Your task to perform on an android device: toggle location history Image 0: 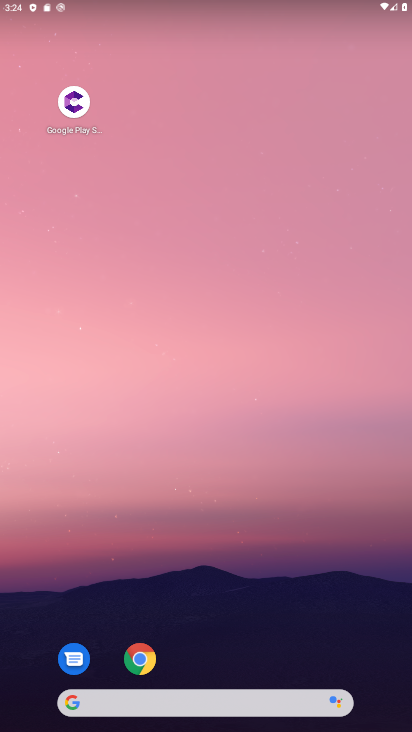
Step 0: drag from (194, 616) to (313, 6)
Your task to perform on an android device: toggle location history Image 1: 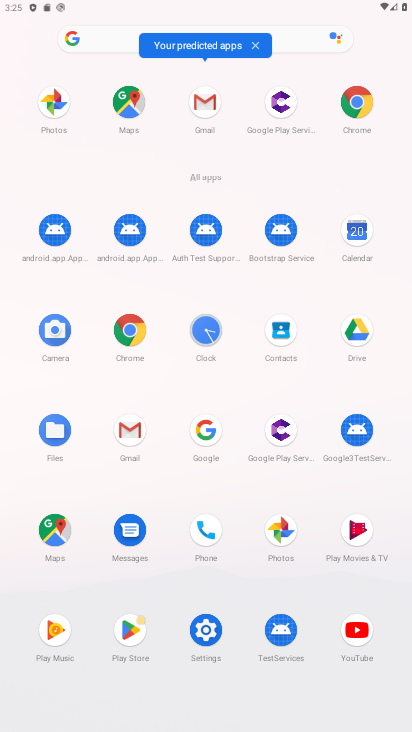
Step 1: click (205, 640)
Your task to perform on an android device: toggle location history Image 2: 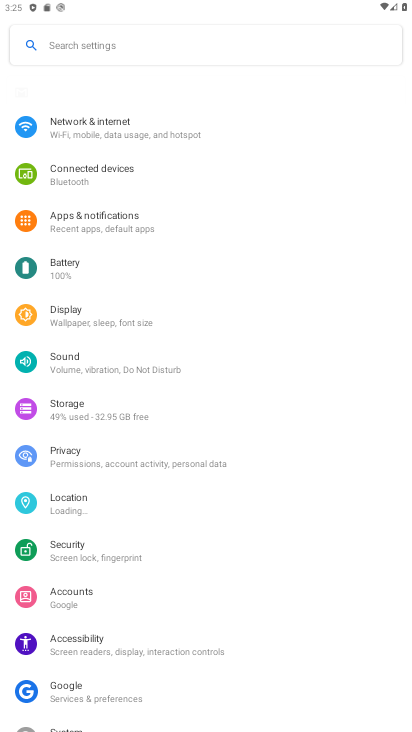
Step 2: click (210, 628)
Your task to perform on an android device: toggle location history Image 3: 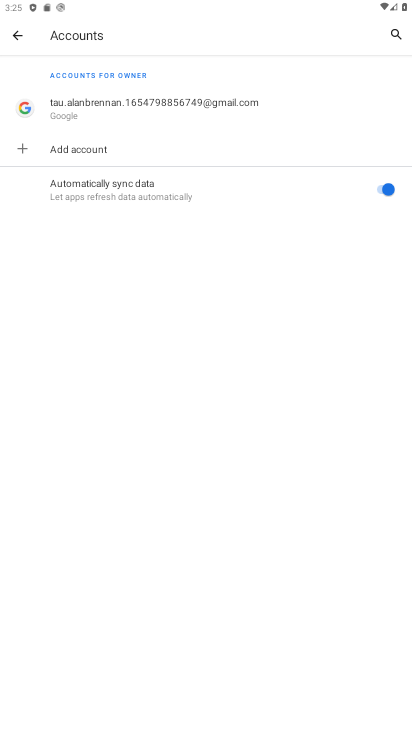
Step 3: click (75, 542)
Your task to perform on an android device: toggle location history Image 4: 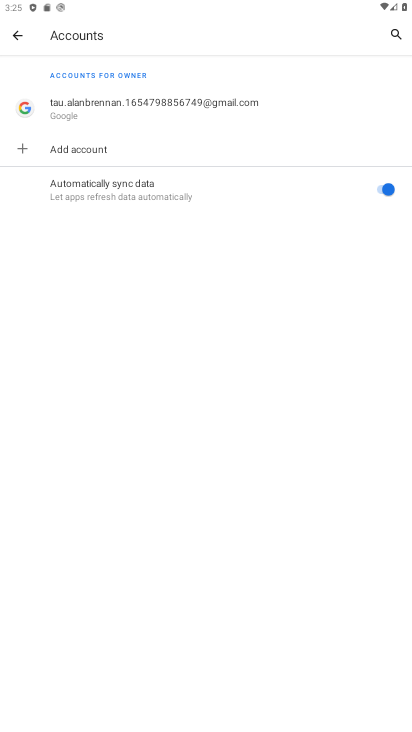
Step 4: click (21, 35)
Your task to perform on an android device: toggle location history Image 5: 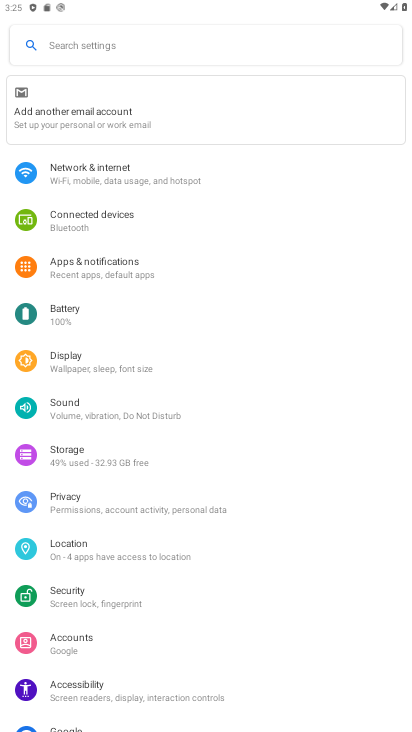
Step 5: click (84, 553)
Your task to perform on an android device: toggle location history Image 6: 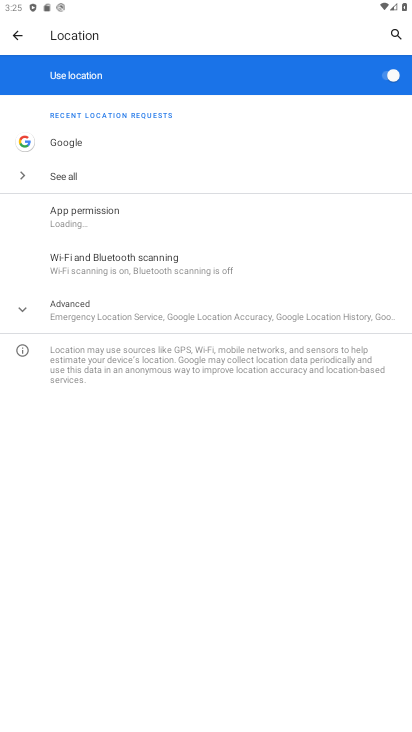
Step 6: click (81, 308)
Your task to perform on an android device: toggle location history Image 7: 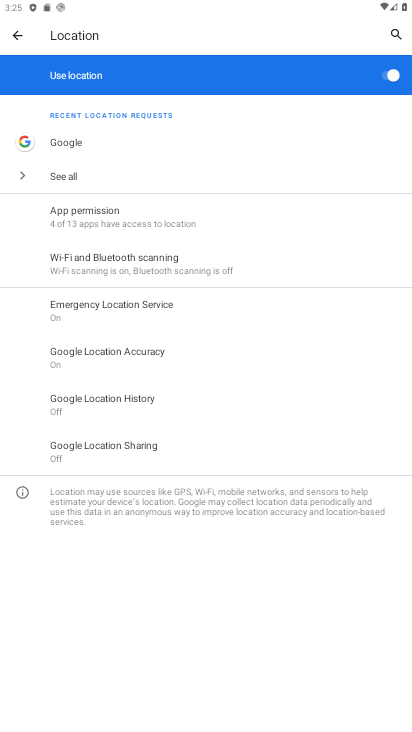
Step 7: click (122, 399)
Your task to perform on an android device: toggle location history Image 8: 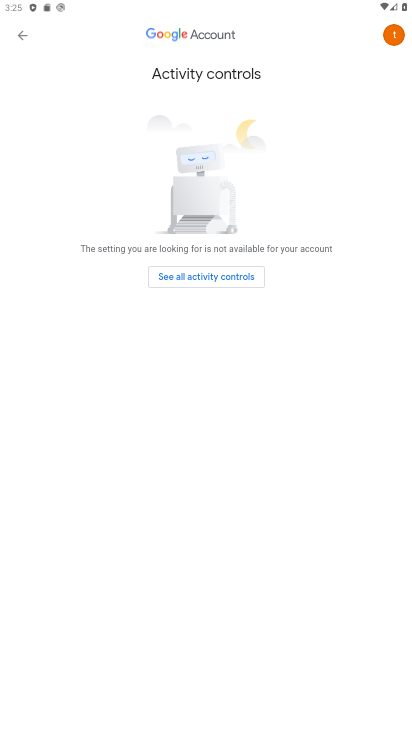
Step 8: click (208, 275)
Your task to perform on an android device: toggle location history Image 9: 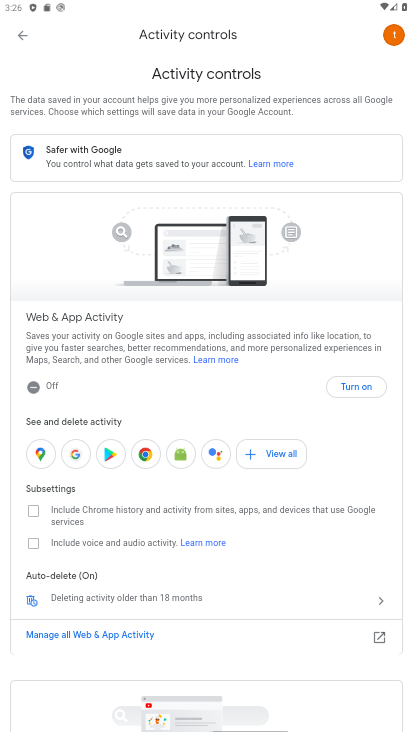
Step 9: click (362, 393)
Your task to perform on an android device: toggle location history Image 10: 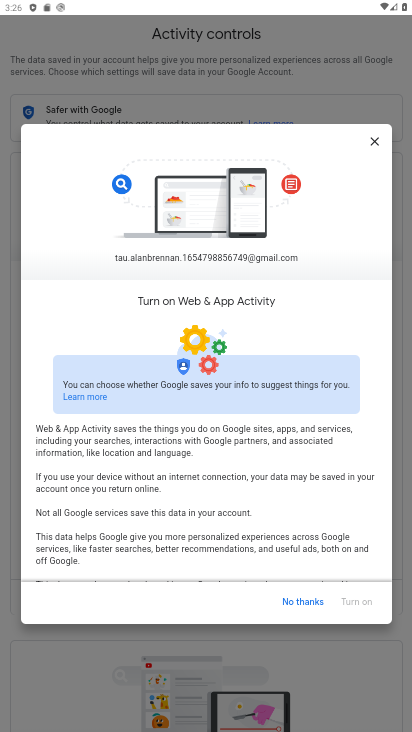
Step 10: click (250, 269)
Your task to perform on an android device: toggle location history Image 11: 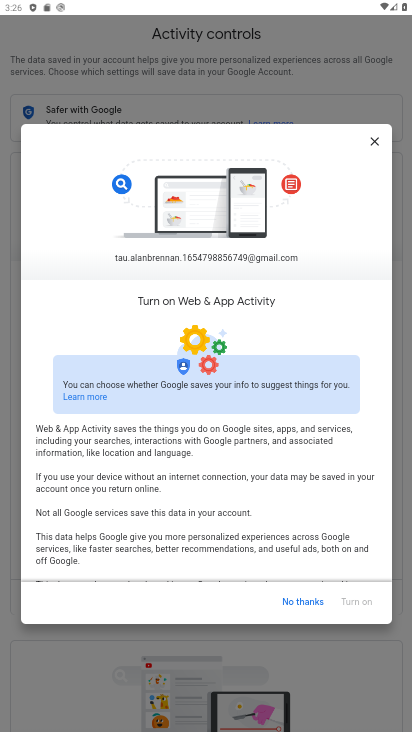
Step 11: drag from (230, 534) to (230, 364)
Your task to perform on an android device: toggle location history Image 12: 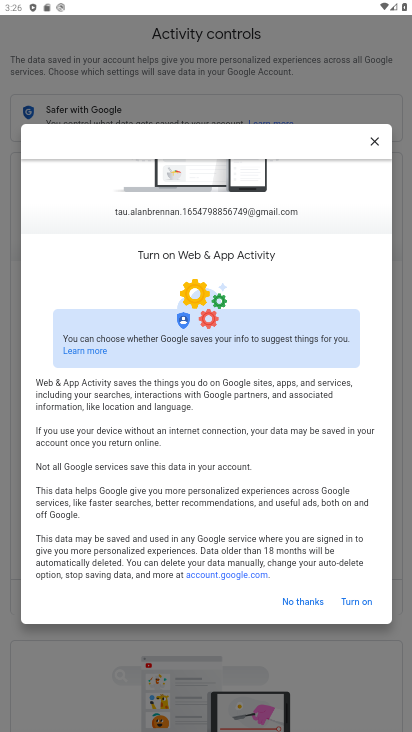
Step 12: click (355, 605)
Your task to perform on an android device: toggle location history Image 13: 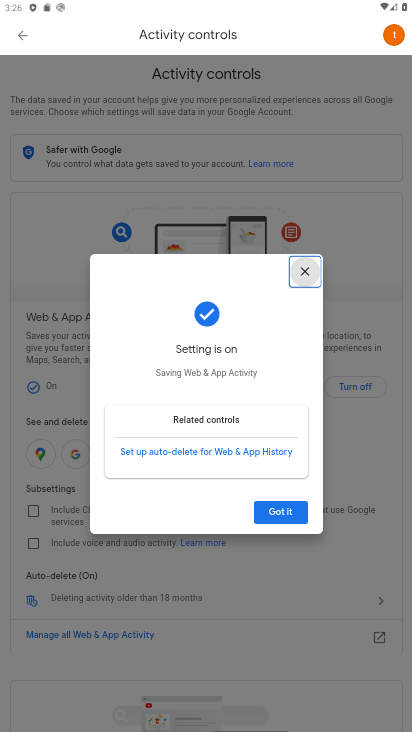
Step 13: click (302, 509)
Your task to perform on an android device: toggle location history Image 14: 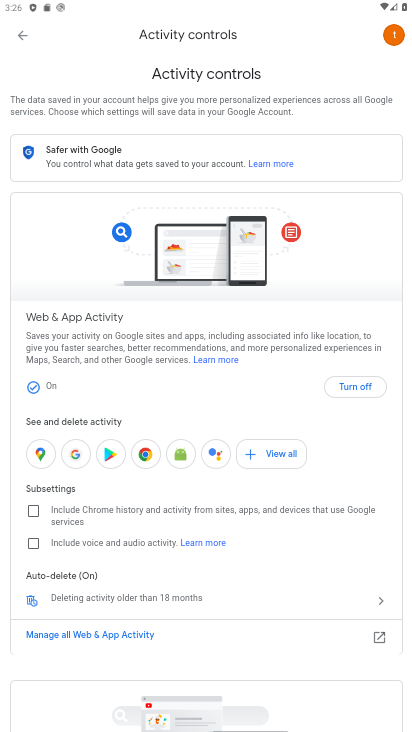
Step 14: task complete